Your task to perform on an android device: create a new album in the google photos Image 0: 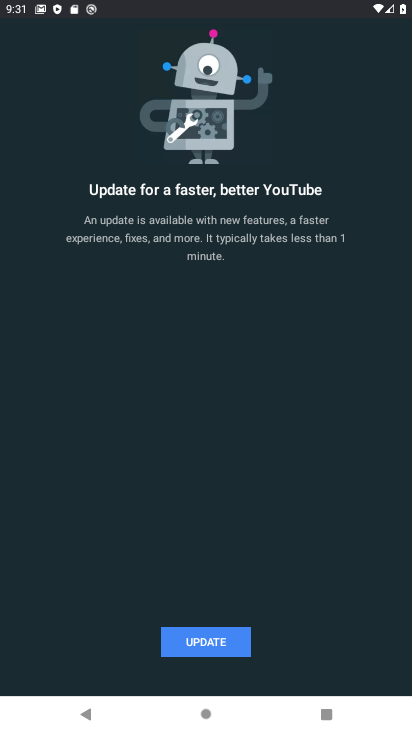
Step 0: press home button
Your task to perform on an android device: create a new album in the google photos Image 1: 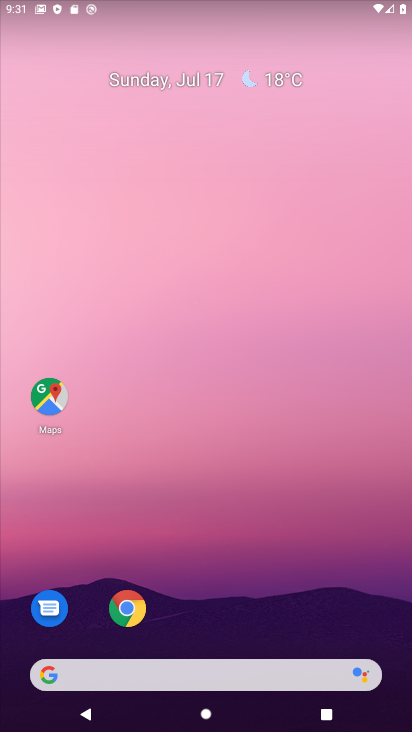
Step 1: drag from (186, 488) to (184, 177)
Your task to perform on an android device: create a new album in the google photos Image 2: 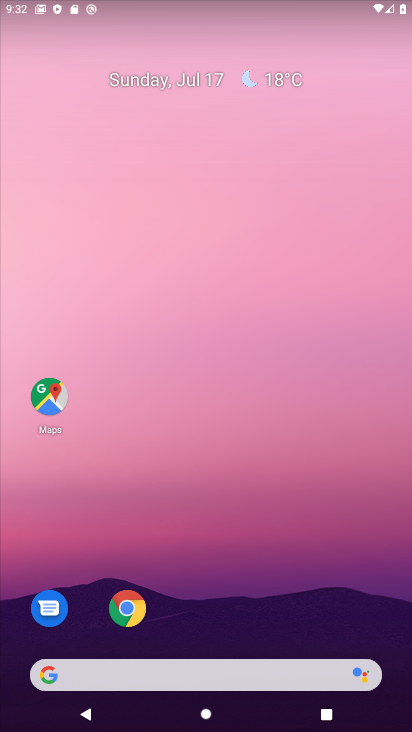
Step 2: drag from (247, 597) to (250, 213)
Your task to perform on an android device: create a new album in the google photos Image 3: 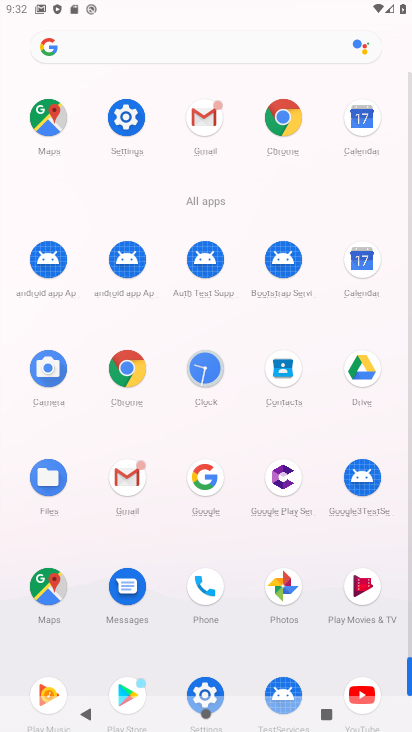
Step 3: drag from (289, 549) to (271, 278)
Your task to perform on an android device: create a new album in the google photos Image 4: 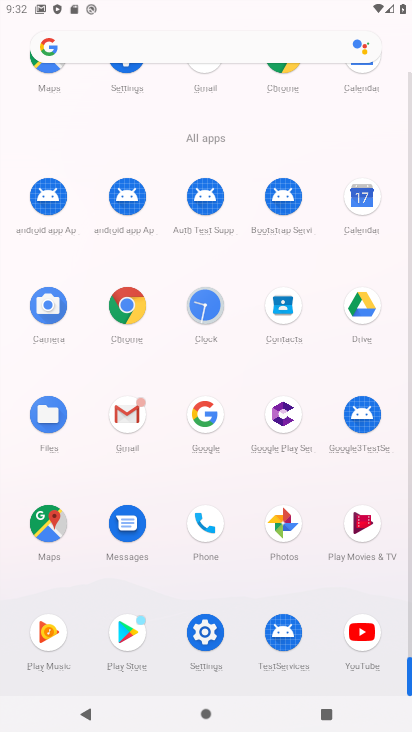
Step 4: click (280, 533)
Your task to perform on an android device: create a new album in the google photos Image 5: 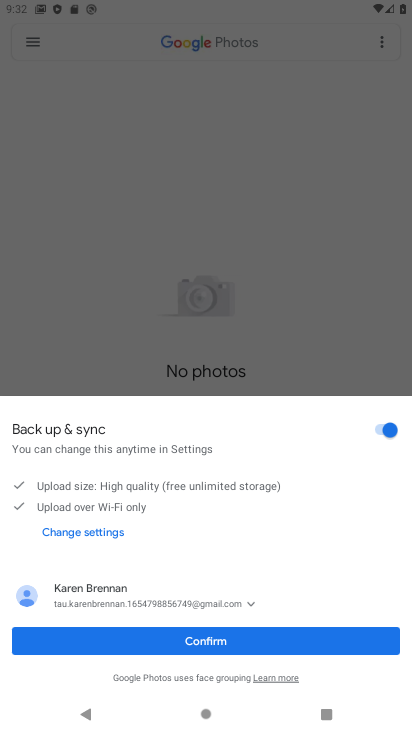
Step 5: click (220, 638)
Your task to perform on an android device: create a new album in the google photos Image 6: 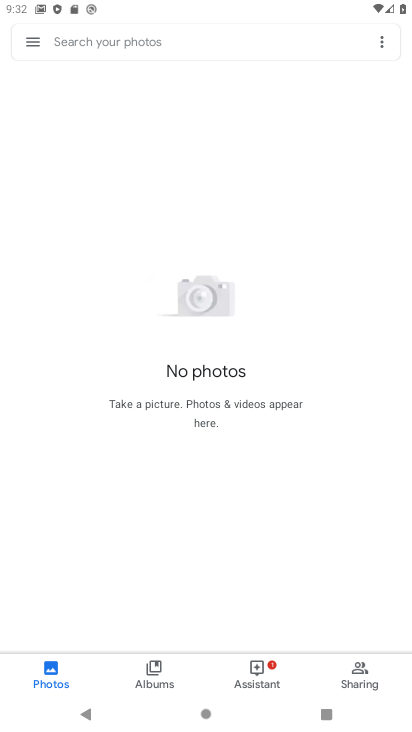
Step 6: click (143, 672)
Your task to perform on an android device: create a new album in the google photos Image 7: 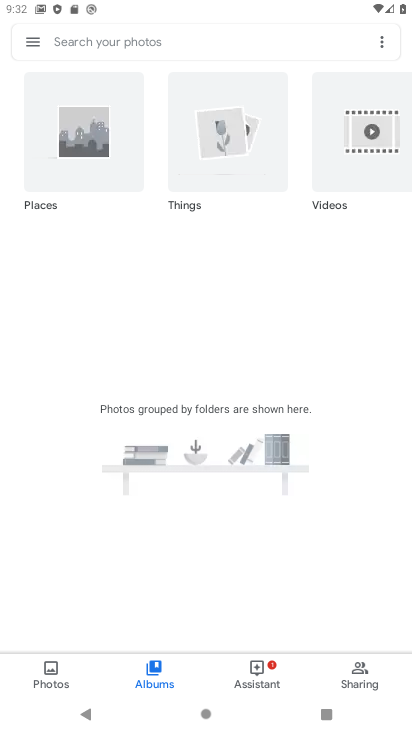
Step 7: click (381, 40)
Your task to perform on an android device: create a new album in the google photos Image 8: 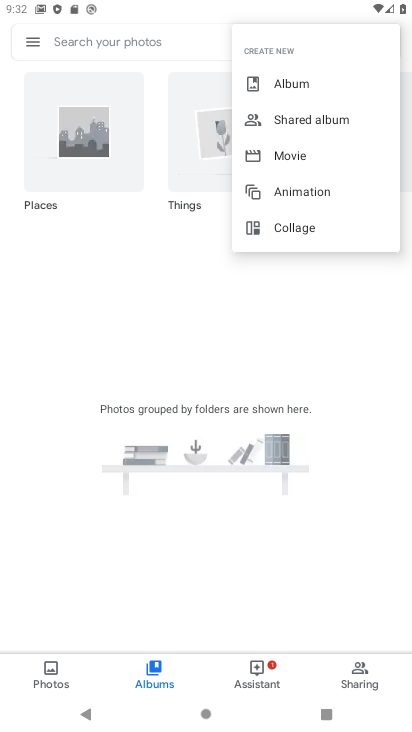
Step 8: click (282, 82)
Your task to perform on an android device: create a new album in the google photos Image 9: 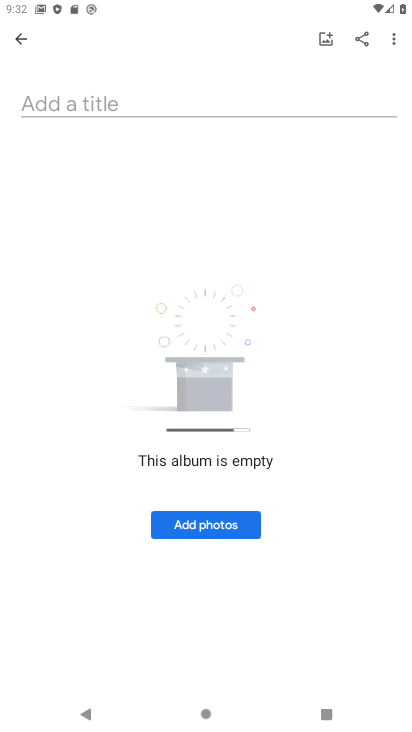
Step 9: click (103, 97)
Your task to perform on an android device: create a new album in the google photos Image 10: 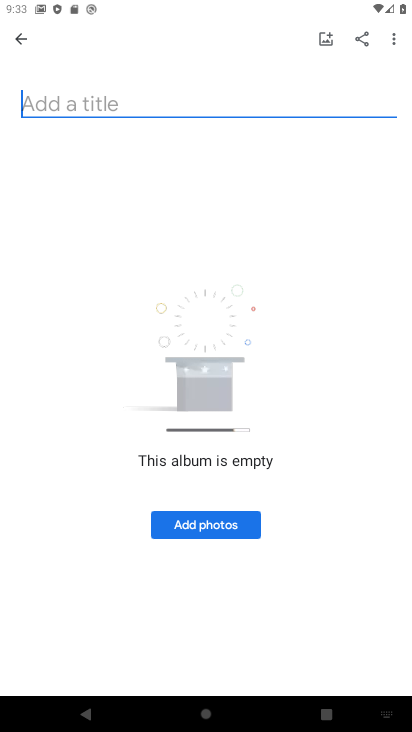
Step 10: type "abc"
Your task to perform on an android device: create a new album in the google photos Image 11: 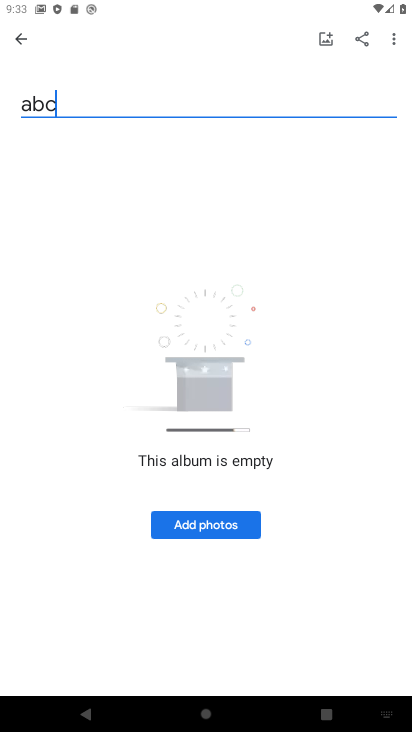
Step 11: type ""
Your task to perform on an android device: create a new album in the google photos Image 12: 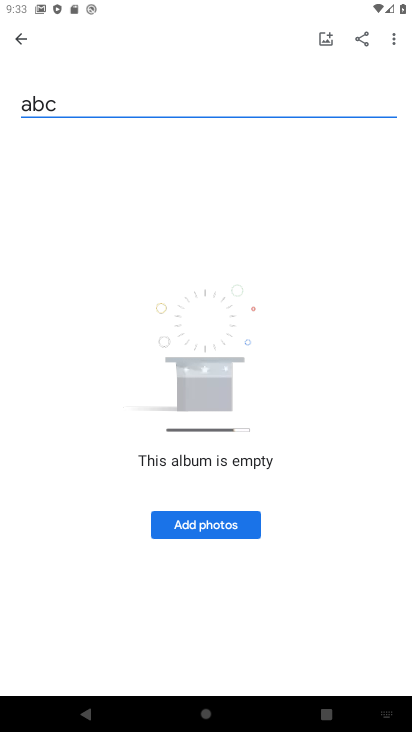
Step 12: press enter
Your task to perform on an android device: create a new album in the google photos Image 13: 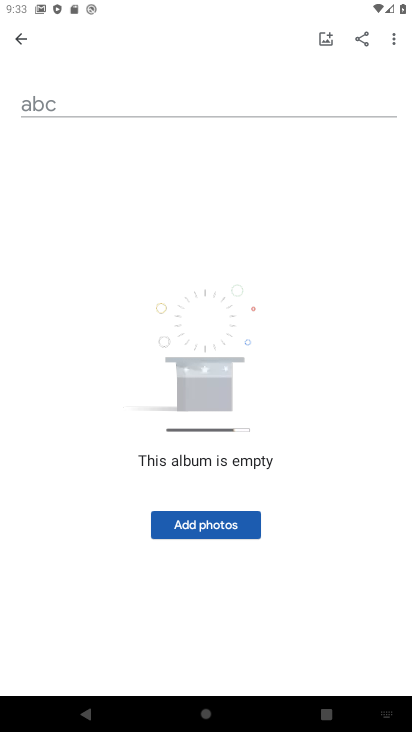
Step 13: click (391, 38)
Your task to perform on an android device: create a new album in the google photos Image 14: 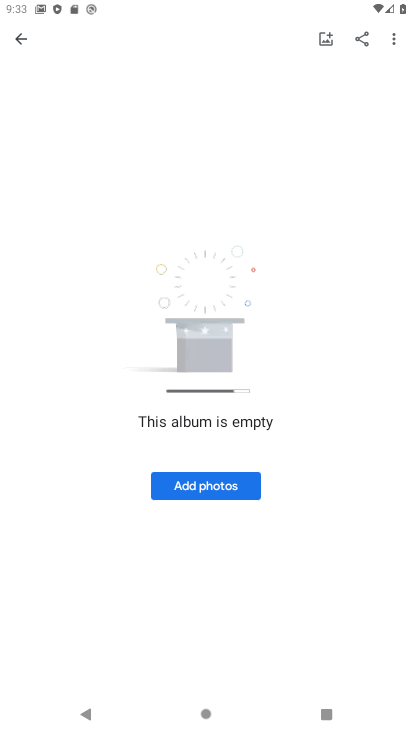
Step 14: task complete